Your task to perform on an android device: Open maps Image 0: 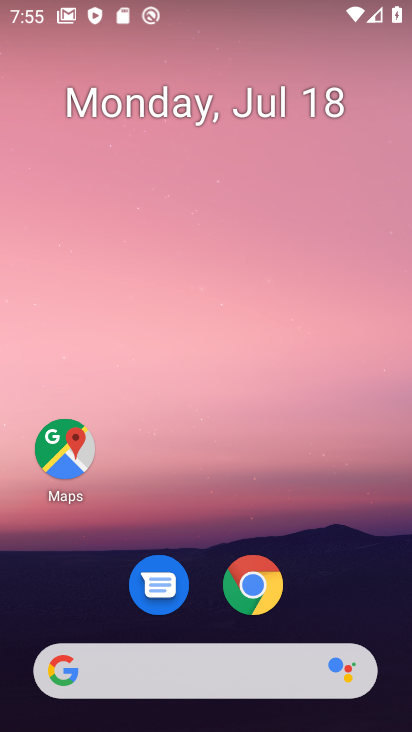
Step 0: click (61, 453)
Your task to perform on an android device: Open maps Image 1: 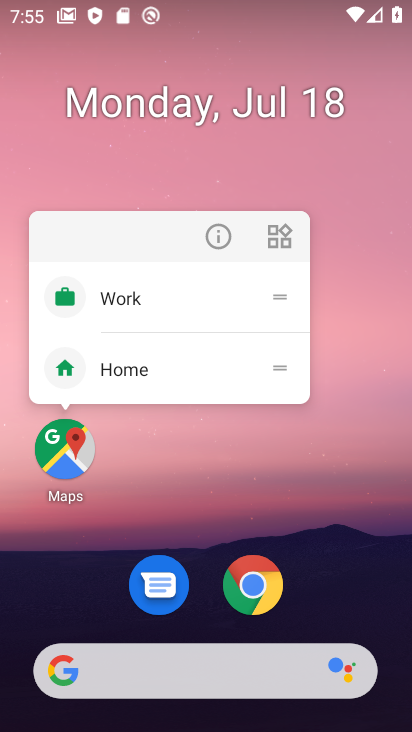
Step 1: click (63, 450)
Your task to perform on an android device: Open maps Image 2: 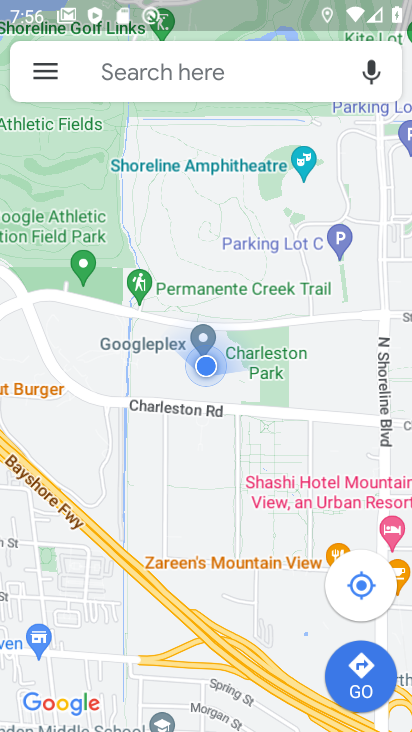
Step 2: task complete